Your task to perform on an android device: Open settings Image 0: 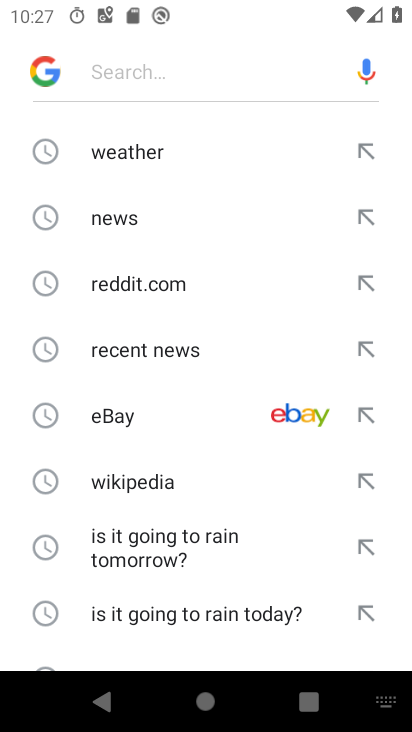
Step 0: press home button
Your task to perform on an android device: Open settings Image 1: 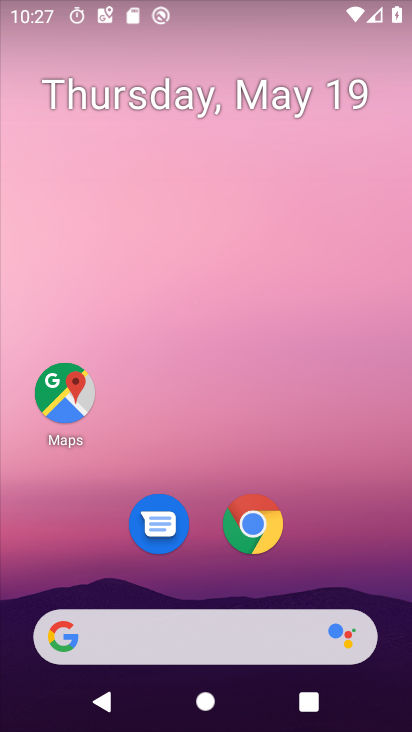
Step 1: drag from (246, 484) to (275, 17)
Your task to perform on an android device: Open settings Image 2: 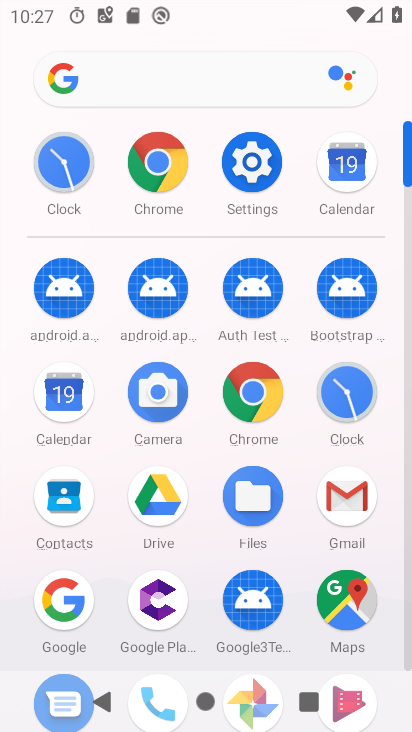
Step 2: click (260, 162)
Your task to perform on an android device: Open settings Image 3: 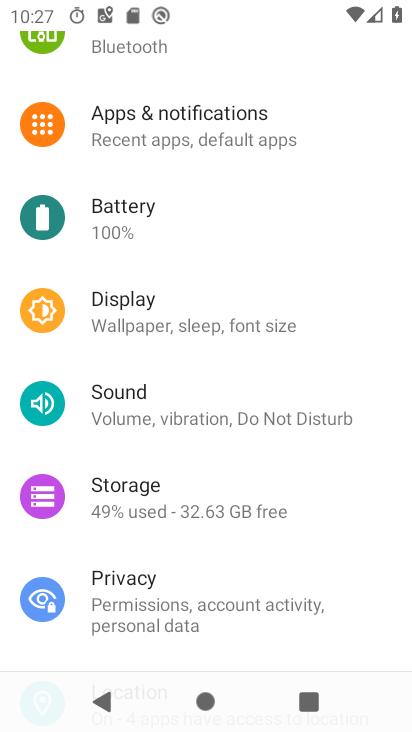
Step 3: task complete